Your task to perform on an android device: Search for a runner rug on Crate & Barrel. Image 0: 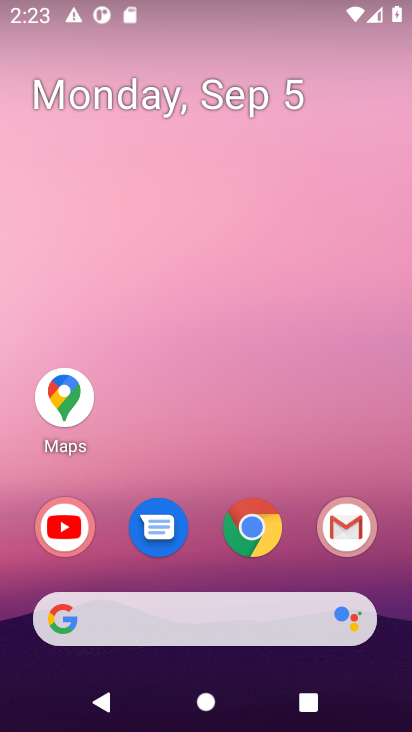
Step 0: click (252, 527)
Your task to perform on an android device: Search for a runner rug on Crate & Barrel. Image 1: 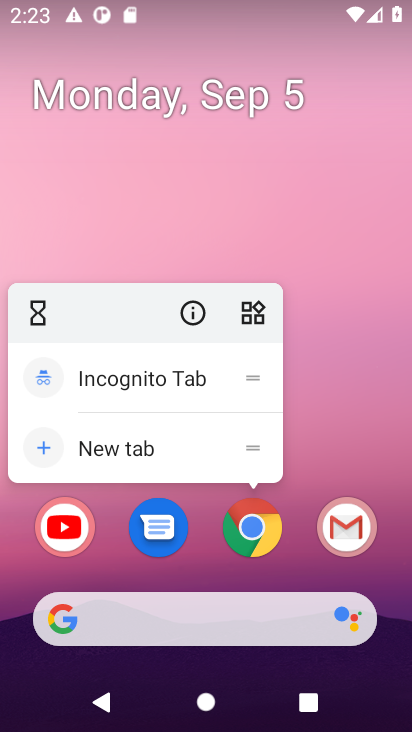
Step 1: click (236, 538)
Your task to perform on an android device: Search for a runner rug on Crate & Barrel. Image 2: 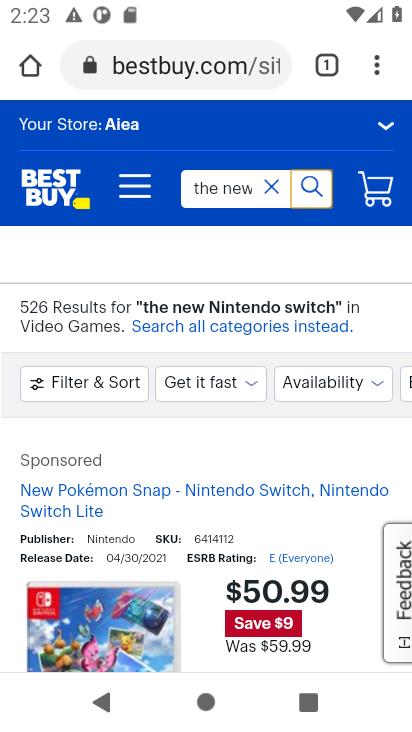
Step 2: click (173, 63)
Your task to perform on an android device: Search for a runner rug on Crate & Barrel. Image 3: 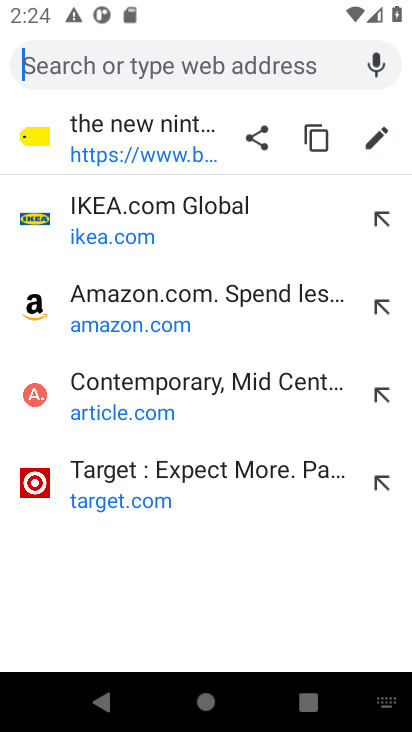
Step 3: type "crate and barrel"
Your task to perform on an android device: Search for a runner rug on Crate & Barrel. Image 4: 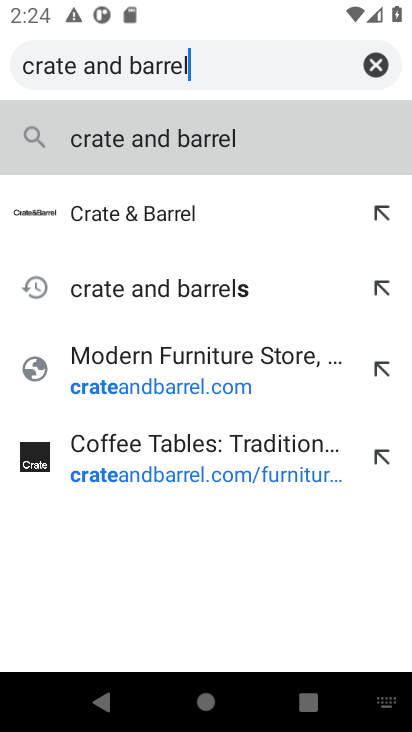
Step 4: click (227, 162)
Your task to perform on an android device: Search for a runner rug on Crate & Barrel. Image 5: 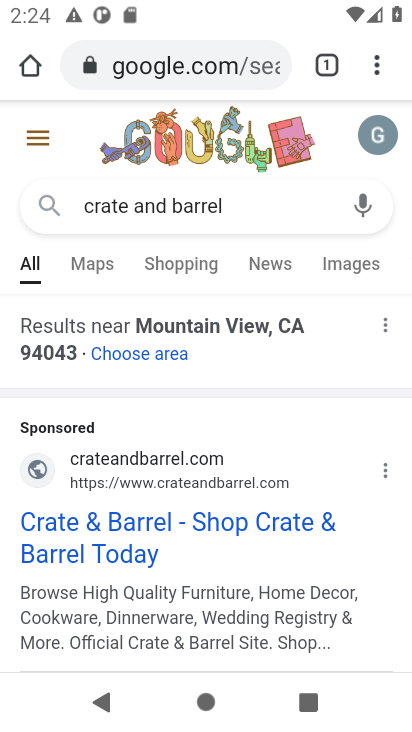
Step 5: click (139, 530)
Your task to perform on an android device: Search for a runner rug on Crate & Barrel. Image 6: 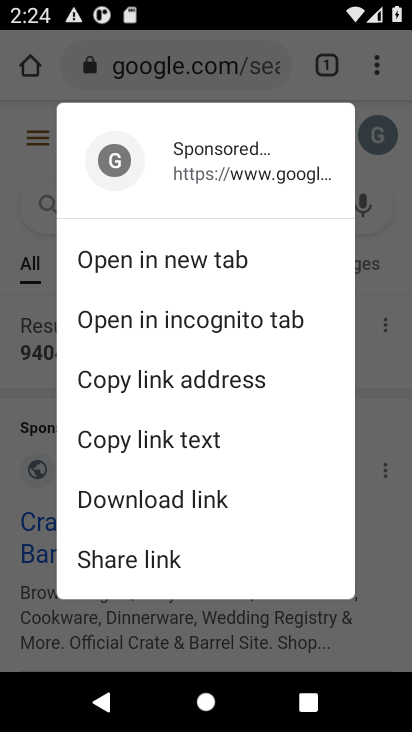
Step 6: click (23, 537)
Your task to perform on an android device: Search for a runner rug on Crate & Barrel. Image 7: 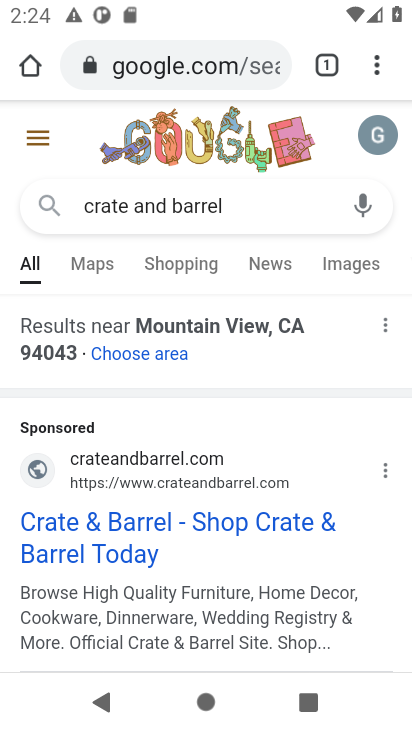
Step 7: click (169, 523)
Your task to perform on an android device: Search for a runner rug on Crate & Barrel. Image 8: 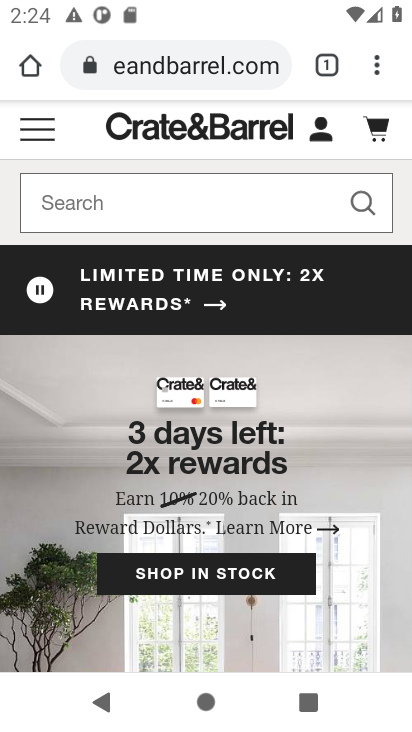
Step 8: click (221, 204)
Your task to perform on an android device: Search for a runner rug on Crate & Barrel. Image 9: 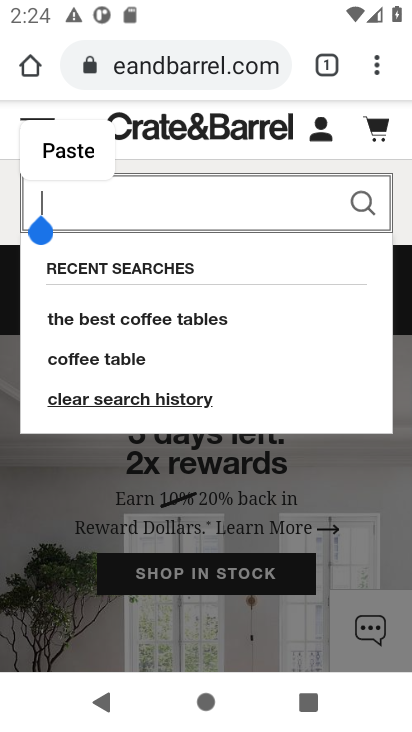
Step 9: type "a runner rug"
Your task to perform on an android device: Search for a runner rug on Crate & Barrel. Image 10: 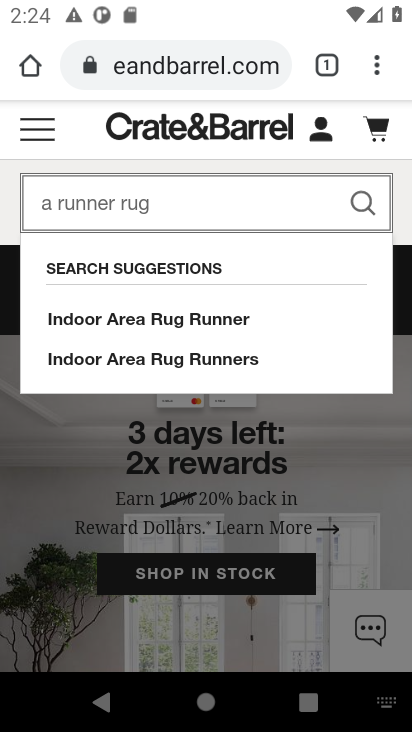
Step 10: click (368, 199)
Your task to perform on an android device: Search for a runner rug on Crate & Barrel. Image 11: 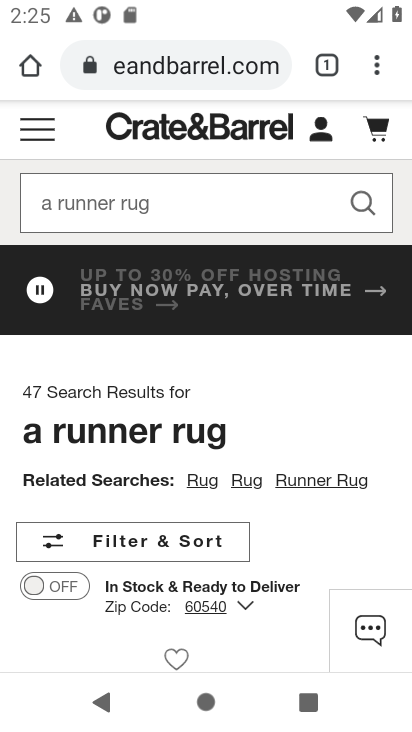
Step 11: task complete